Your task to perform on an android device: open chrome and create a bookmark for the current page Image 0: 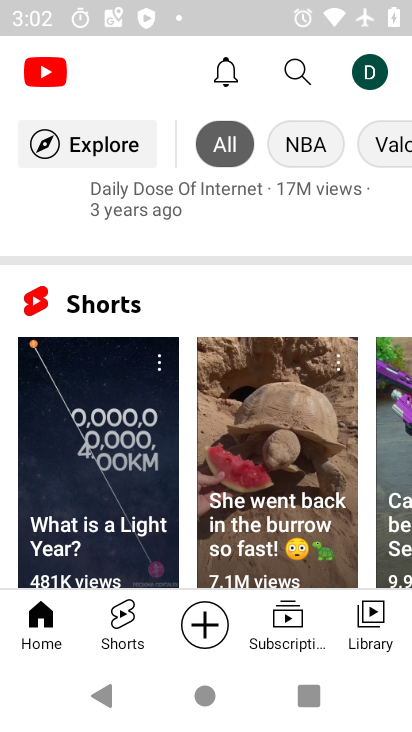
Step 0: press home button
Your task to perform on an android device: open chrome and create a bookmark for the current page Image 1: 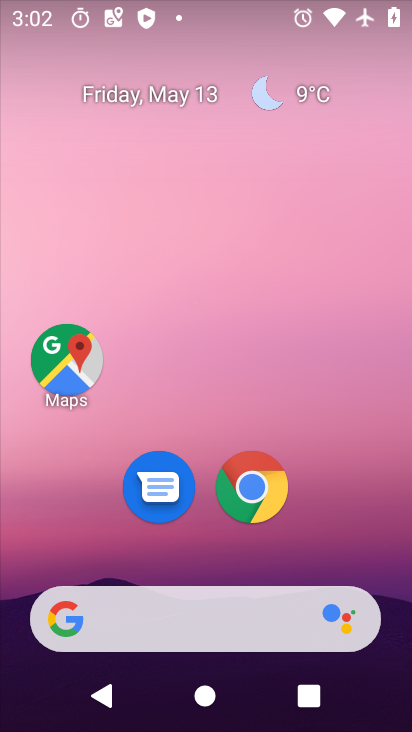
Step 1: click (255, 491)
Your task to perform on an android device: open chrome and create a bookmark for the current page Image 2: 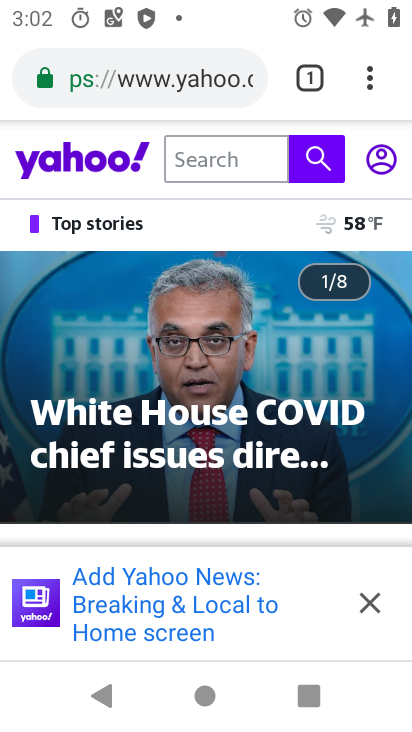
Step 2: click (366, 79)
Your task to perform on an android device: open chrome and create a bookmark for the current page Image 3: 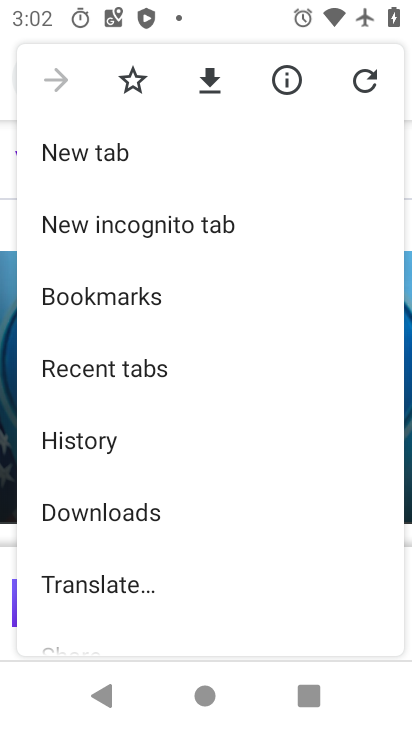
Step 3: click (134, 84)
Your task to perform on an android device: open chrome and create a bookmark for the current page Image 4: 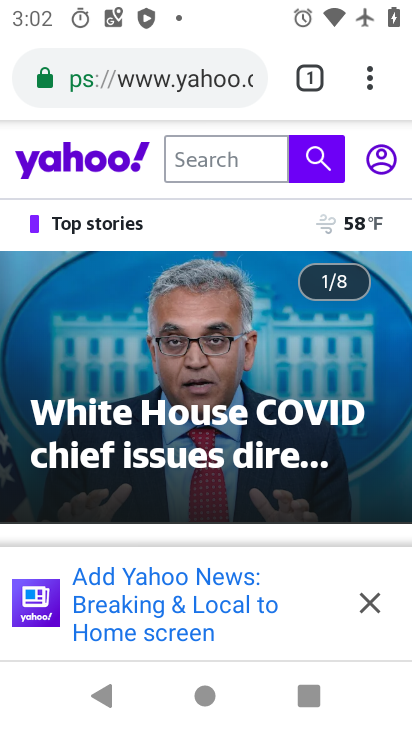
Step 4: task complete